Your task to perform on an android device: turn pop-ups off in chrome Image 0: 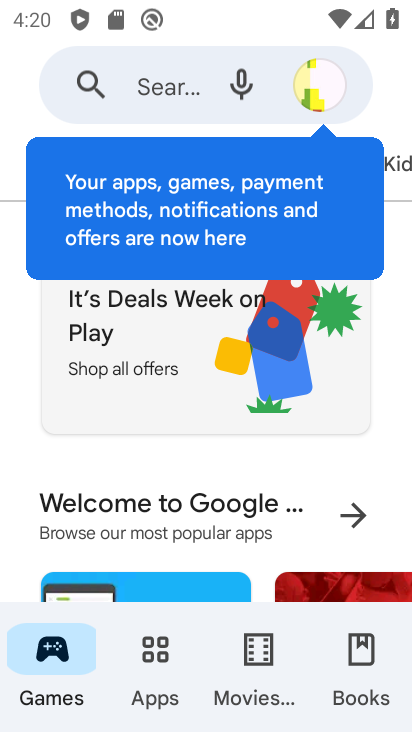
Step 0: press home button
Your task to perform on an android device: turn pop-ups off in chrome Image 1: 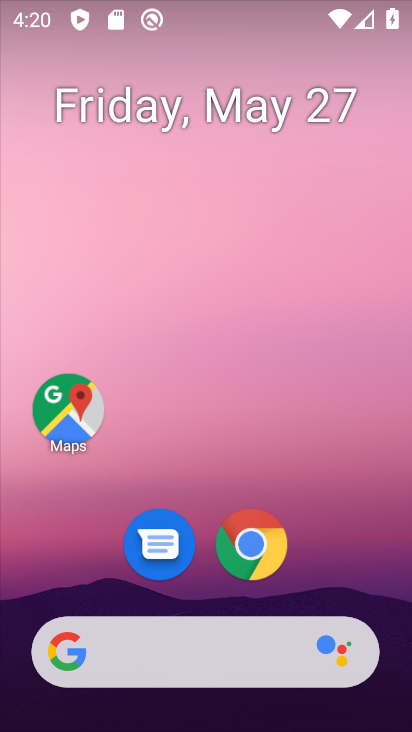
Step 1: click (271, 547)
Your task to perform on an android device: turn pop-ups off in chrome Image 2: 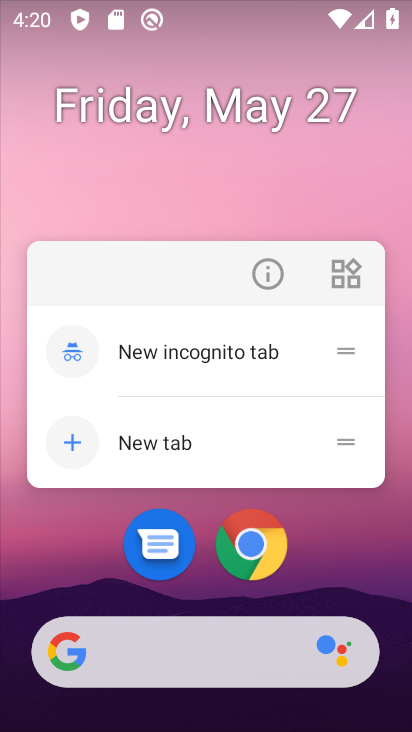
Step 2: click (267, 548)
Your task to perform on an android device: turn pop-ups off in chrome Image 3: 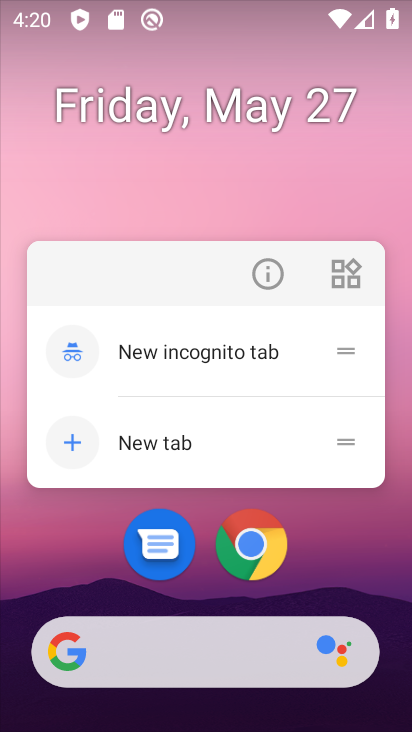
Step 3: click (259, 556)
Your task to perform on an android device: turn pop-ups off in chrome Image 4: 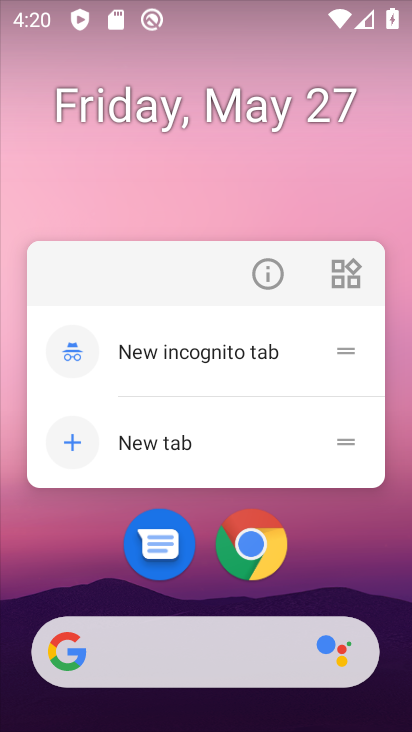
Step 4: click (261, 554)
Your task to perform on an android device: turn pop-ups off in chrome Image 5: 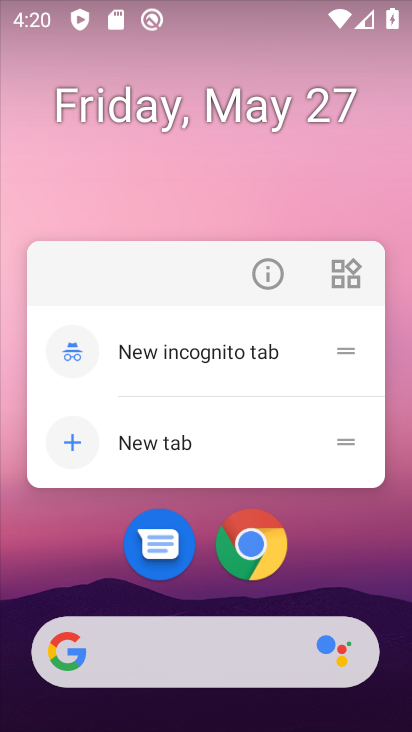
Step 5: click (256, 548)
Your task to perform on an android device: turn pop-ups off in chrome Image 6: 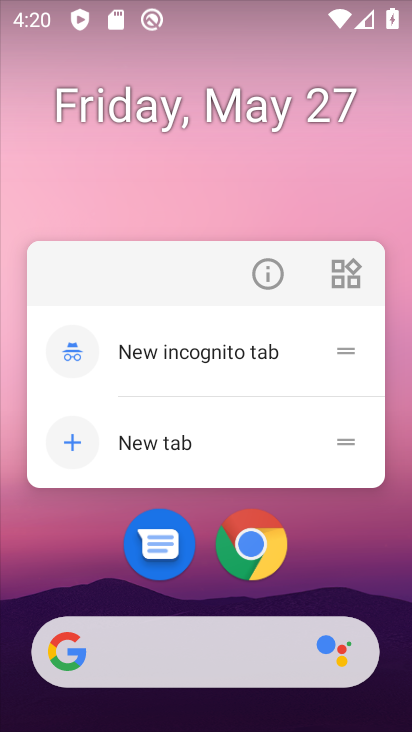
Step 6: click (256, 547)
Your task to perform on an android device: turn pop-ups off in chrome Image 7: 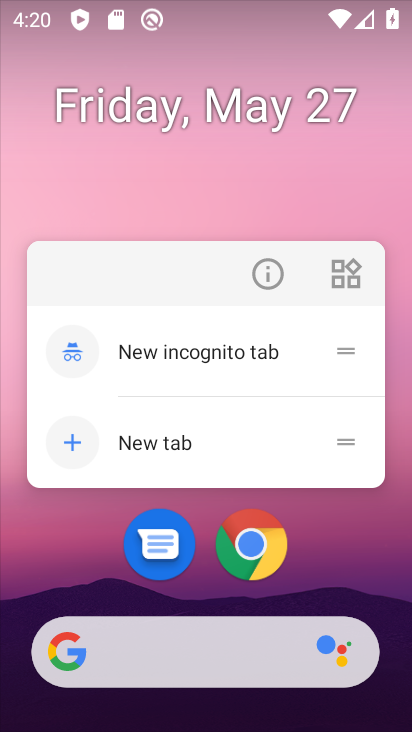
Step 7: click (243, 538)
Your task to perform on an android device: turn pop-ups off in chrome Image 8: 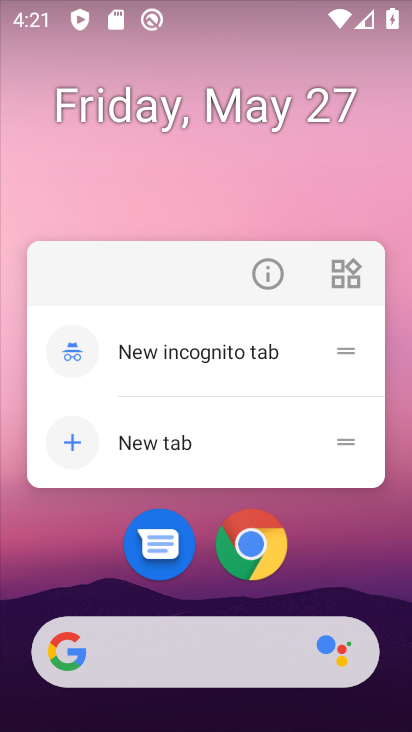
Step 8: click (249, 536)
Your task to perform on an android device: turn pop-ups off in chrome Image 9: 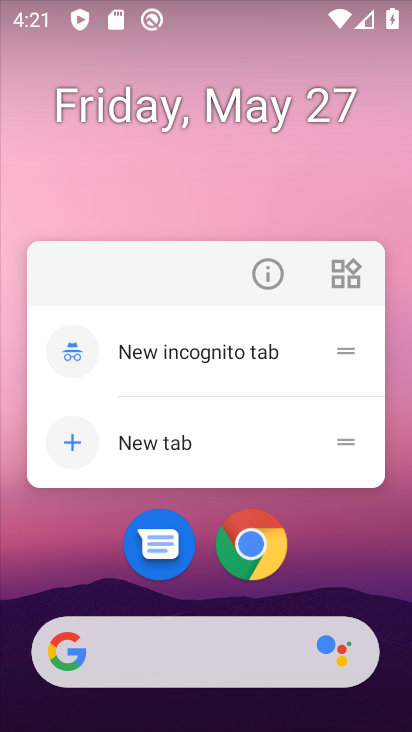
Step 9: click (282, 539)
Your task to perform on an android device: turn pop-ups off in chrome Image 10: 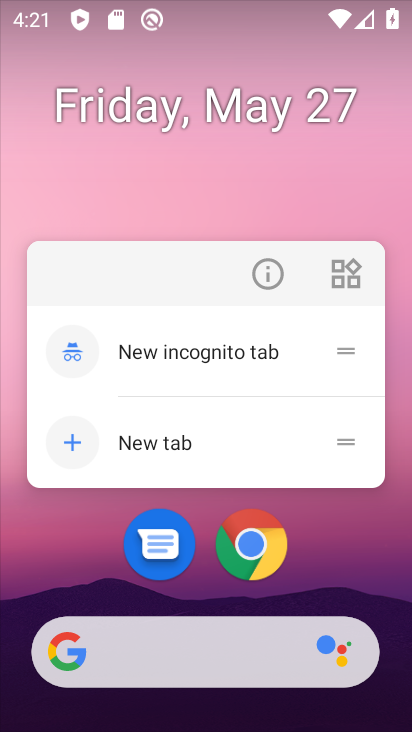
Step 10: click (276, 546)
Your task to perform on an android device: turn pop-ups off in chrome Image 11: 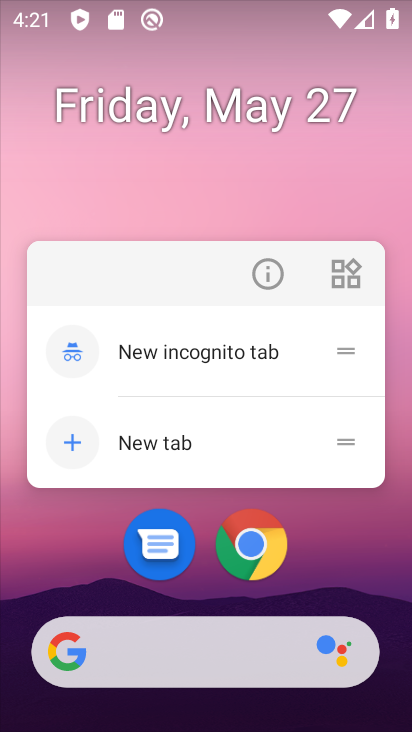
Step 11: click (267, 571)
Your task to perform on an android device: turn pop-ups off in chrome Image 12: 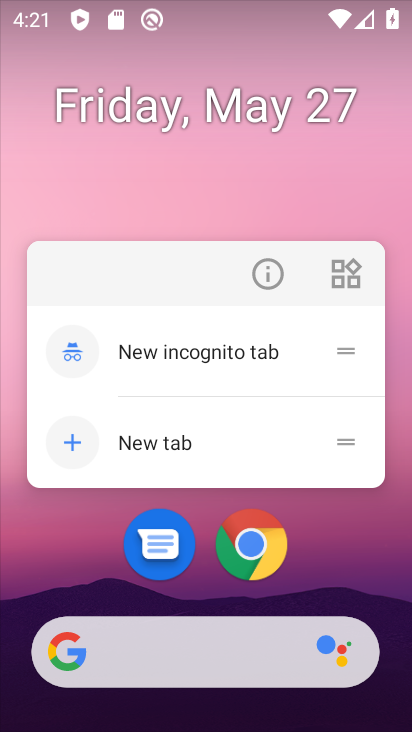
Step 12: click (248, 553)
Your task to perform on an android device: turn pop-ups off in chrome Image 13: 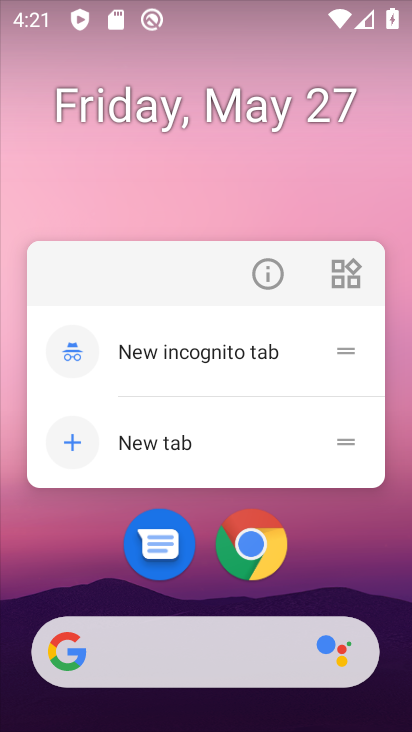
Step 13: click (248, 547)
Your task to perform on an android device: turn pop-ups off in chrome Image 14: 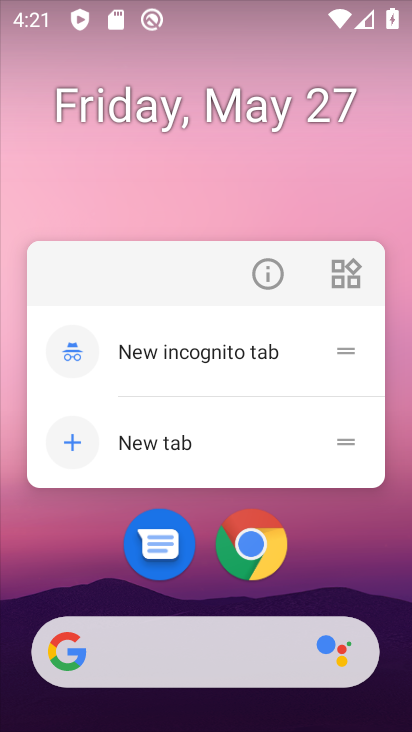
Step 14: drag from (355, 606) to (408, 243)
Your task to perform on an android device: turn pop-ups off in chrome Image 15: 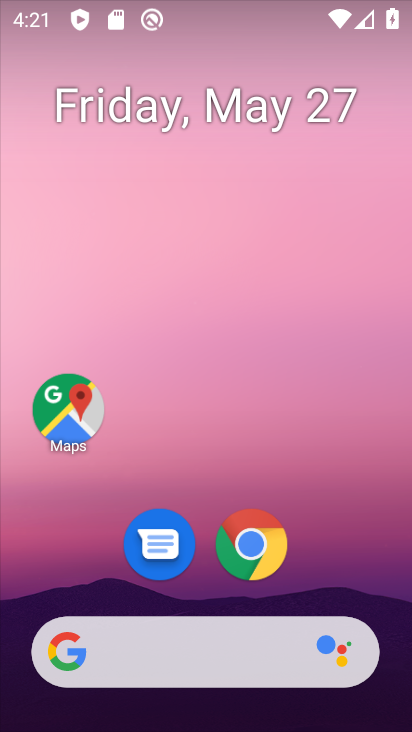
Step 15: drag from (293, 609) to (348, 144)
Your task to perform on an android device: turn pop-ups off in chrome Image 16: 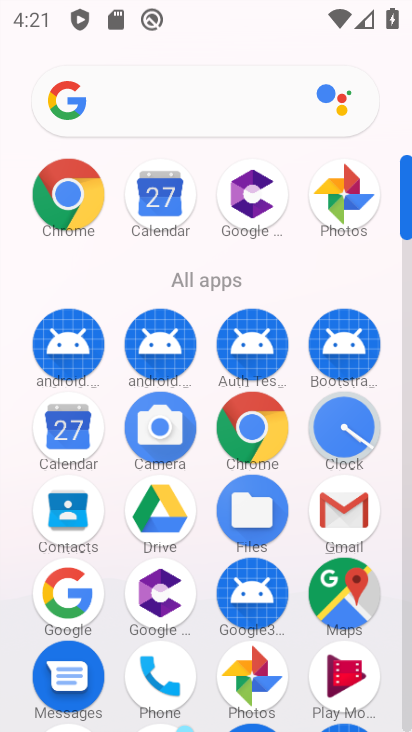
Step 16: click (239, 428)
Your task to perform on an android device: turn pop-ups off in chrome Image 17: 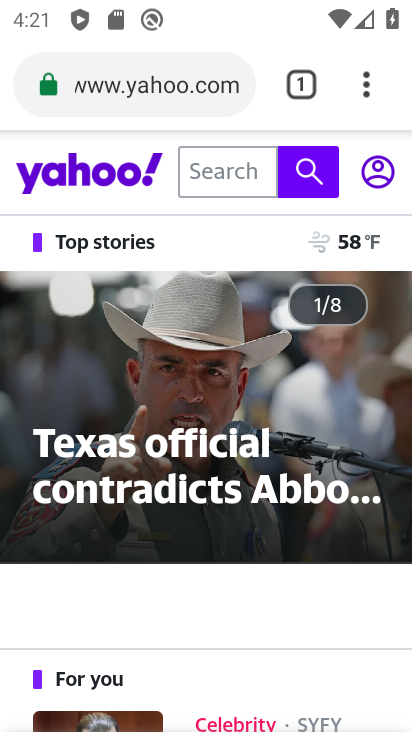
Step 17: drag from (395, 85) to (276, 589)
Your task to perform on an android device: turn pop-ups off in chrome Image 18: 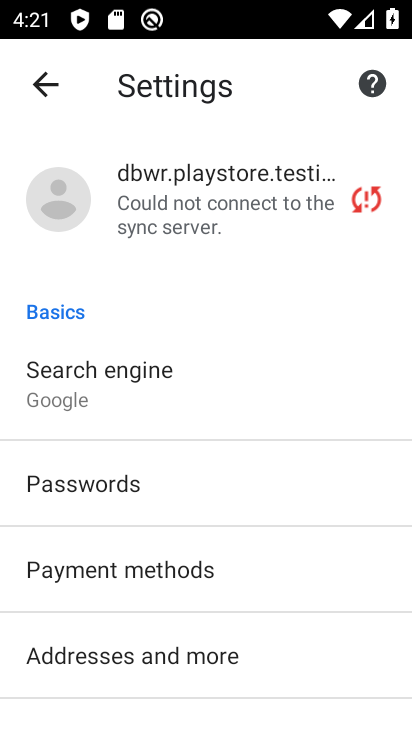
Step 18: drag from (175, 649) to (258, 272)
Your task to perform on an android device: turn pop-ups off in chrome Image 19: 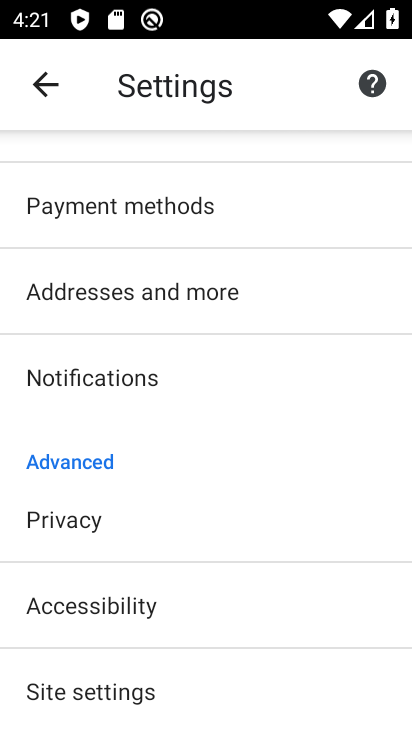
Step 19: drag from (161, 615) to (245, 295)
Your task to perform on an android device: turn pop-ups off in chrome Image 20: 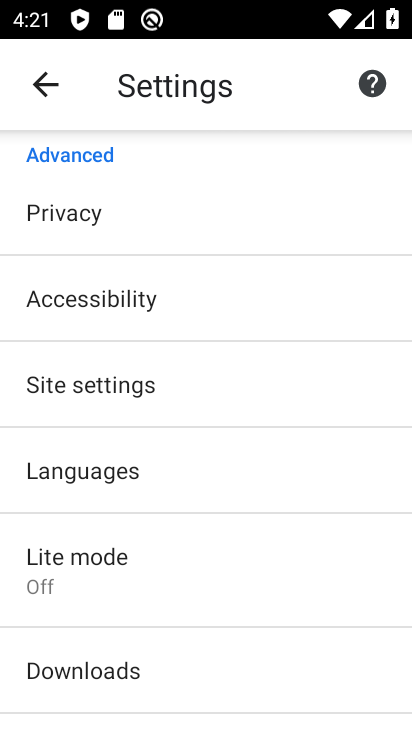
Step 20: click (161, 385)
Your task to perform on an android device: turn pop-ups off in chrome Image 21: 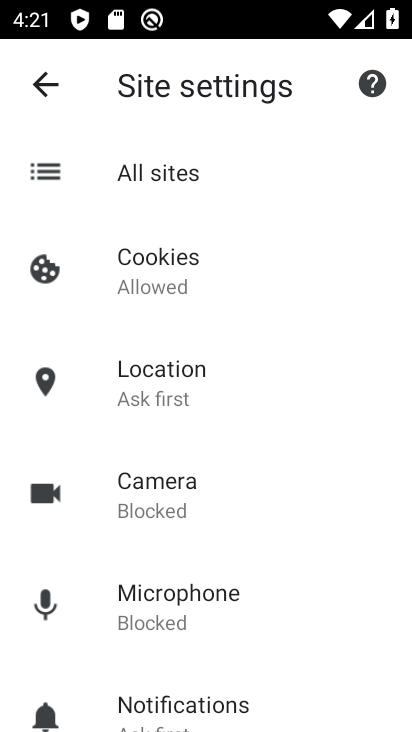
Step 21: drag from (144, 599) to (219, 278)
Your task to perform on an android device: turn pop-ups off in chrome Image 22: 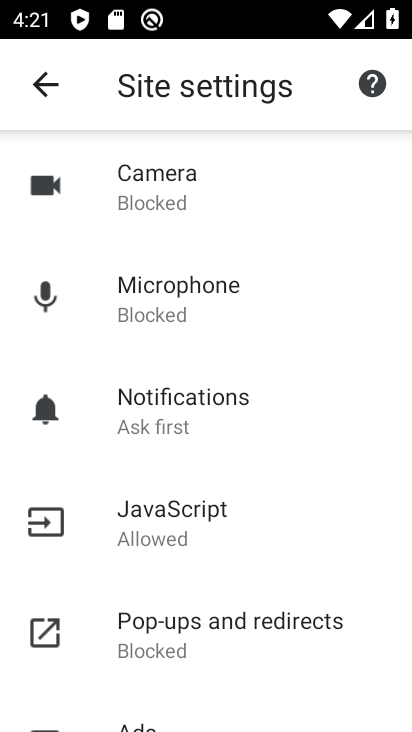
Step 22: click (215, 625)
Your task to perform on an android device: turn pop-ups off in chrome Image 23: 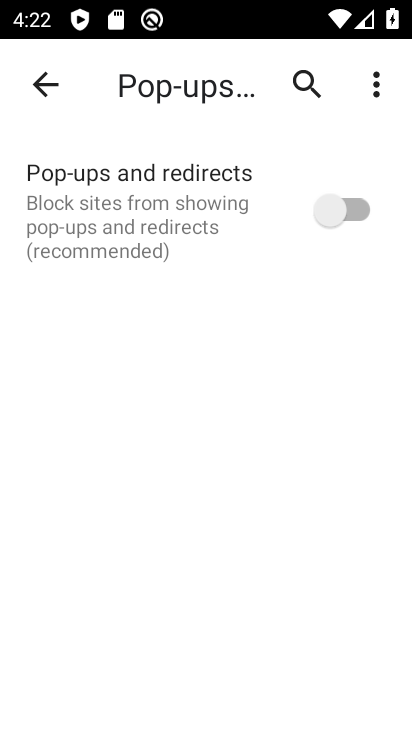
Step 23: task complete